Your task to perform on an android device: When is my next appointment? Image 0: 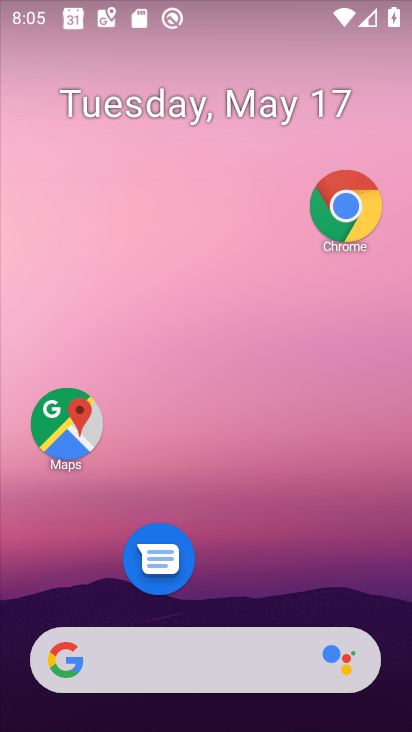
Step 0: drag from (205, 587) to (280, 12)
Your task to perform on an android device: When is my next appointment? Image 1: 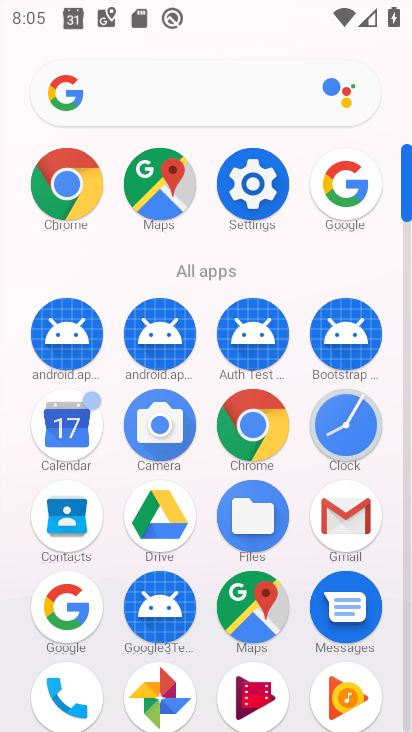
Step 1: click (86, 432)
Your task to perform on an android device: When is my next appointment? Image 2: 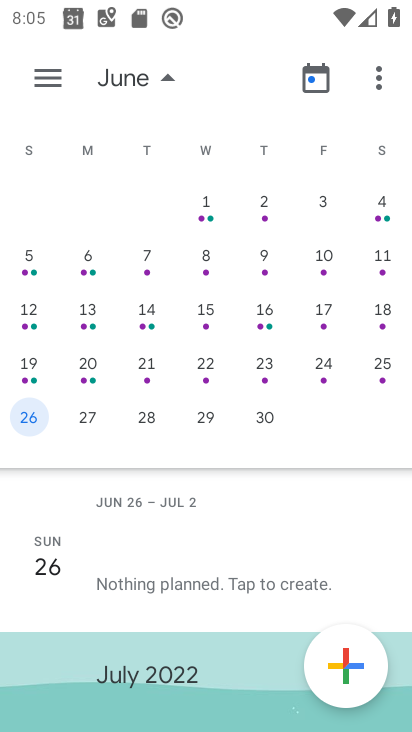
Step 2: drag from (74, 303) to (411, 250)
Your task to perform on an android device: When is my next appointment? Image 3: 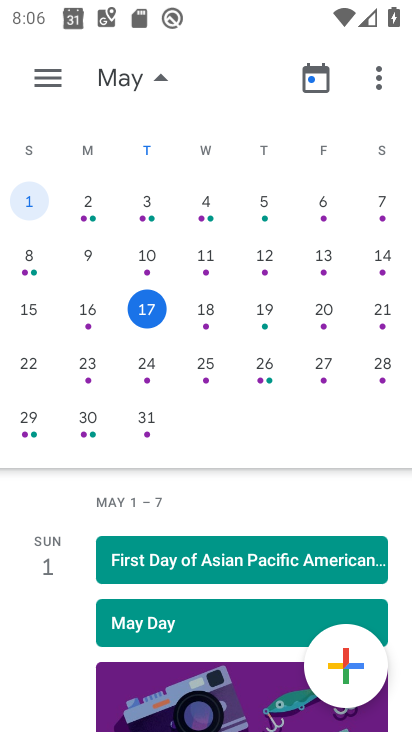
Step 3: click (162, 277)
Your task to perform on an android device: When is my next appointment? Image 4: 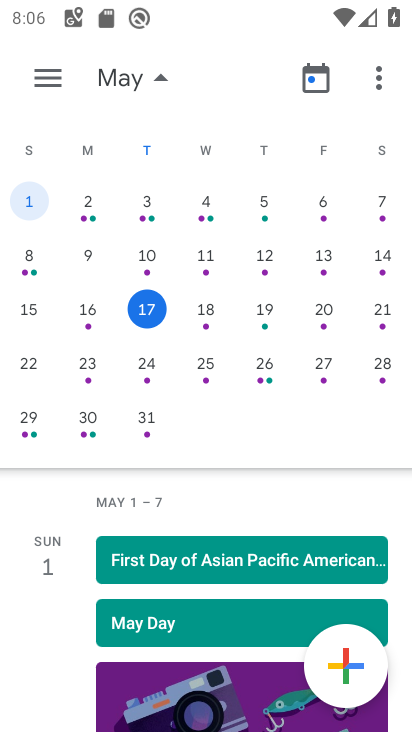
Step 4: click (154, 322)
Your task to perform on an android device: When is my next appointment? Image 5: 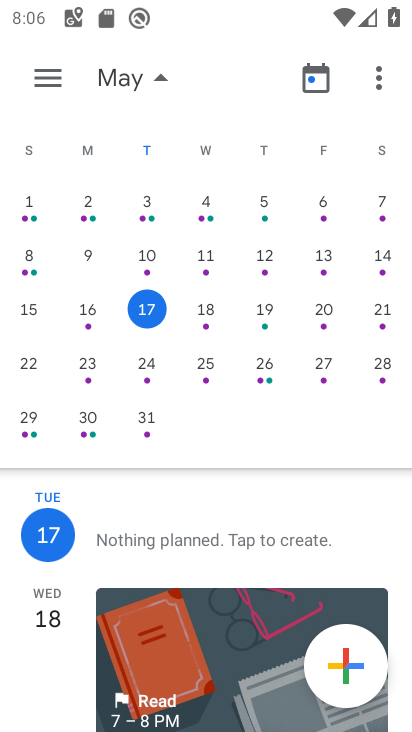
Step 5: click (158, 315)
Your task to perform on an android device: When is my next appointment? Image 6: 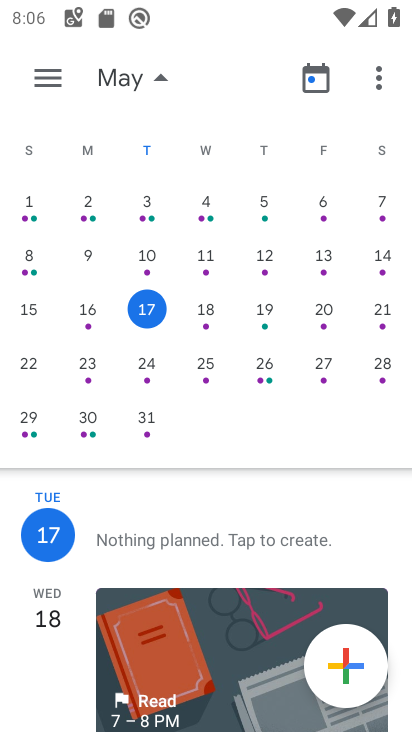
Step 6: drag from (185, 504) to (208, 354)
Your task to perform on an android device: When is my next appointment? Image 7: 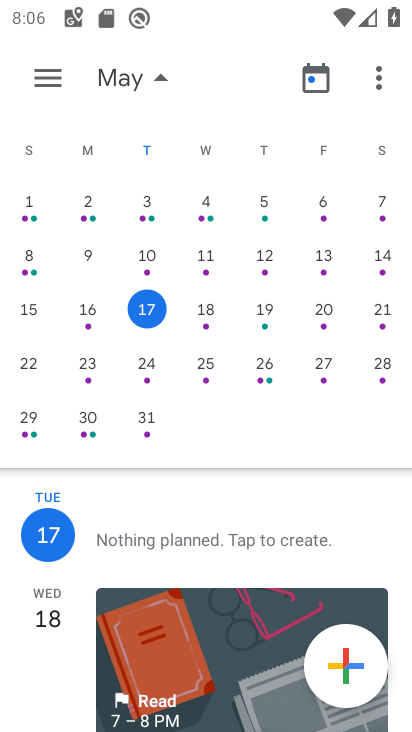
Step 7: click (56, 70)
Your task to perform on an android device: When is my next appointment? Image 8: 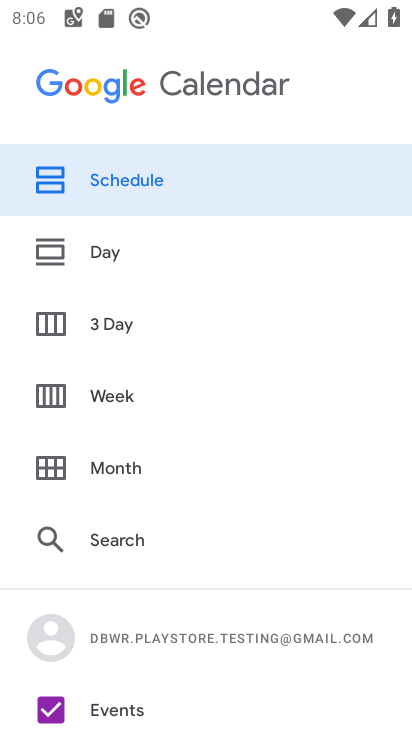
Step 8: drag from (135, 590) to (173, 283)
Your task to perform on an android device: When is my next appointment? Image 9: 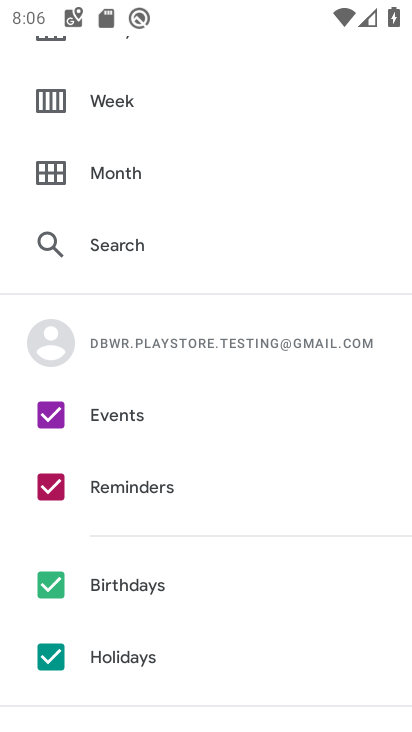
Step 9: click (65, 657)
Your task to perform on an android device: When is my next appointment? Image 10: 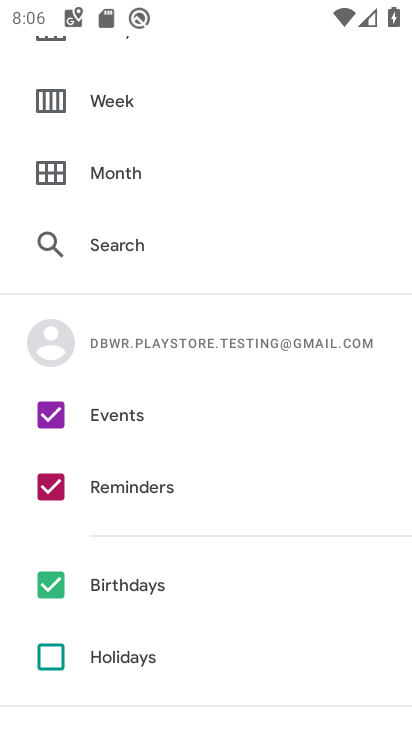
Step 10: click (61, 566)
Your task to perform on an android device: When is my next appointment? Image 11: 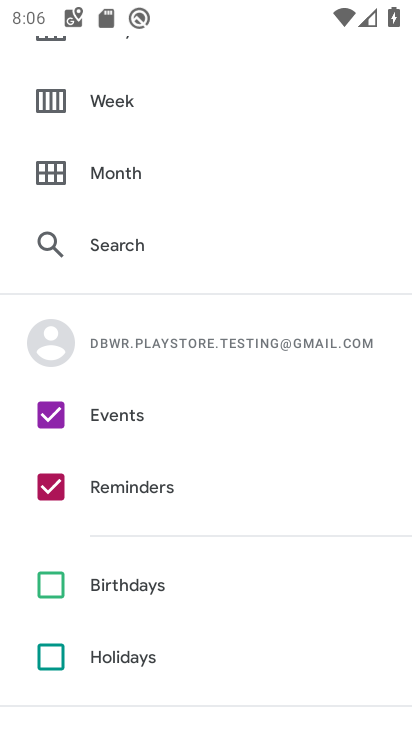
Step 11: task complete